Your task to perform on an android device: set default search engine in the chrome app Image 0: 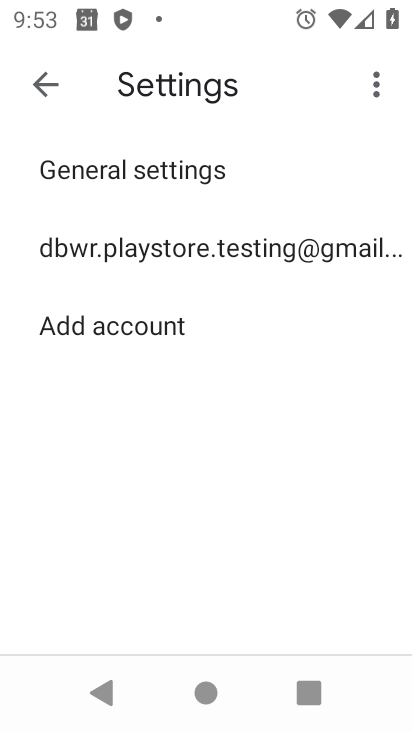
Step 0: press home button
Your task to perform on an android device: set default search engine in the chrome app Image 1: 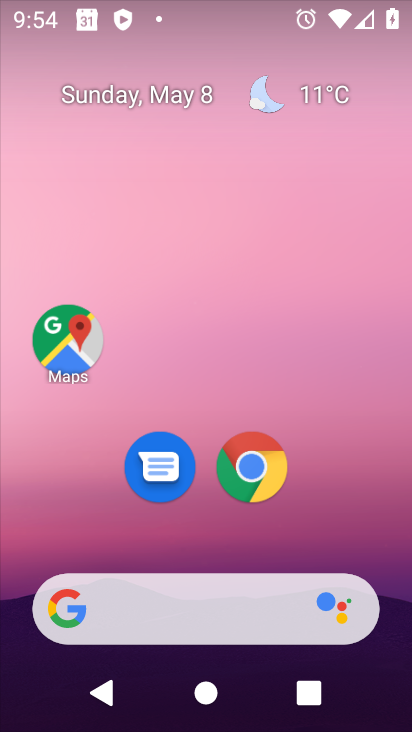
Step 1: click (253, 467)
Your task to perform on an android device: set default search engine in the chrome app Image 2: 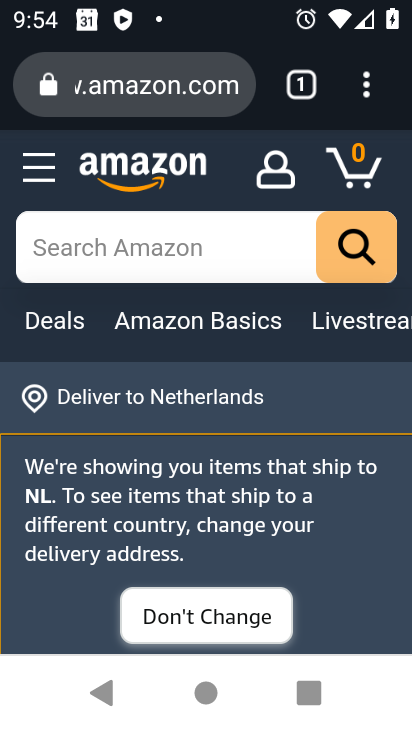
Step 2: press back button
Your task to perform on an android device: set default search engine in the chrome app Image 3: 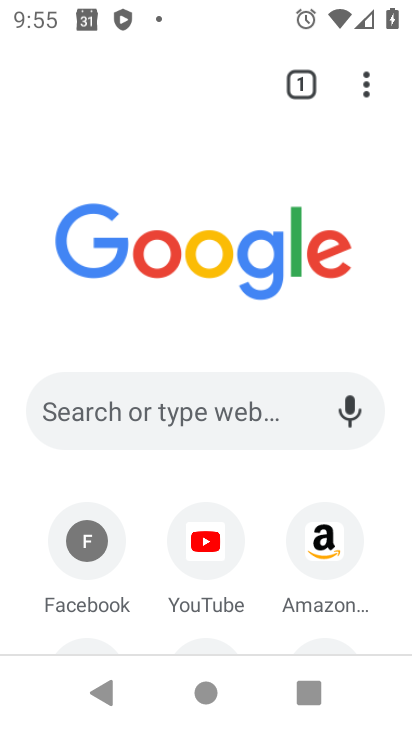
Step 3: click (362, 90)
Your task to perform on an android device: set default search engine in the chrome app Image 4: 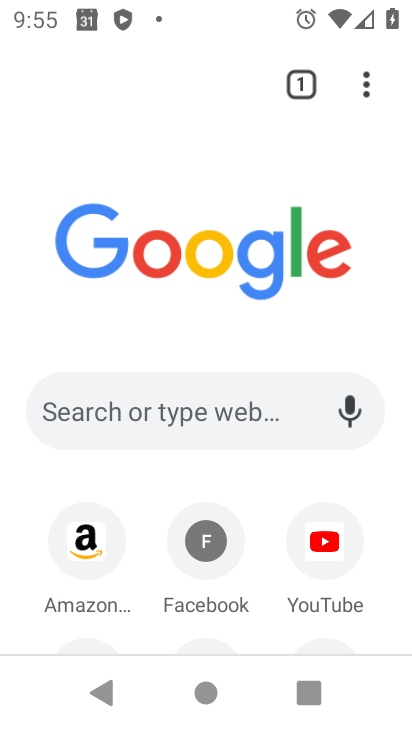
Step 4: click (362, 91)
Your task to perform on an android device: set default search engine in the chrome app Image 5: 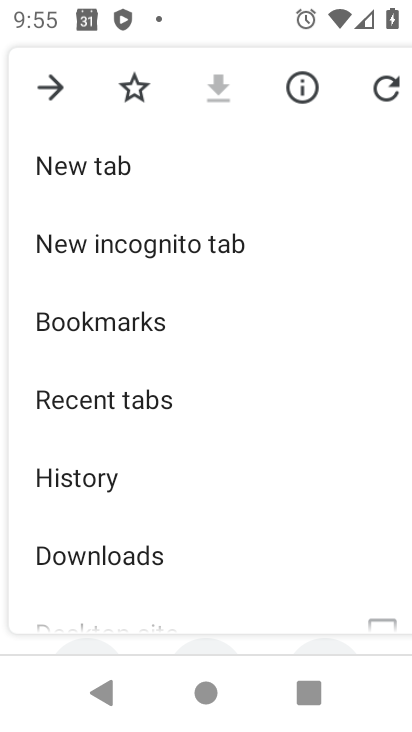
Step 5: drag from (185, 568) to (327, 250)
Your task to perform on an android device: set default search engine in the chrome app Image 6: 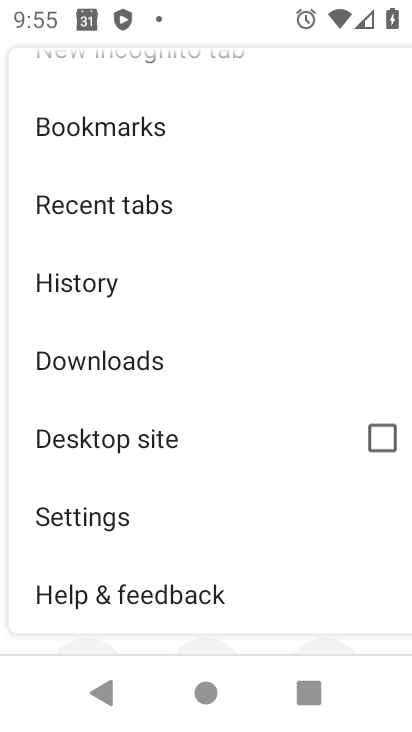
Step 6: click (121, 511)
Your task to perform on an android device: set default search engine in the chrome app Image 7: 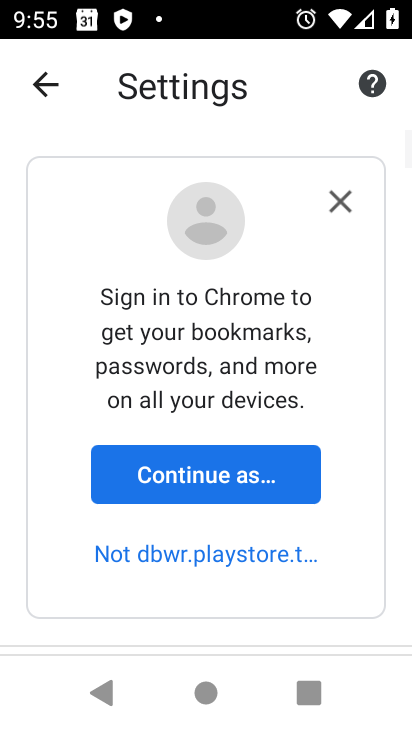
Step 7: click (338, 196)
Your task to perform on an android device: set default search engine in the chrome app Image 8: 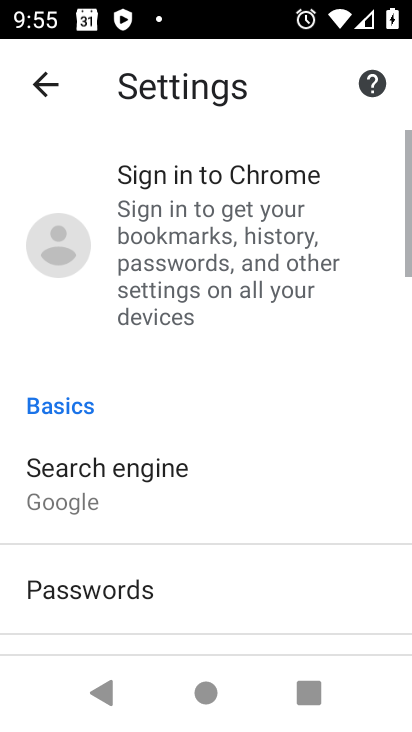
Step 8: click (134, 524)
Your task to perform on an android device: set default search engine in the chrome app Image 9: 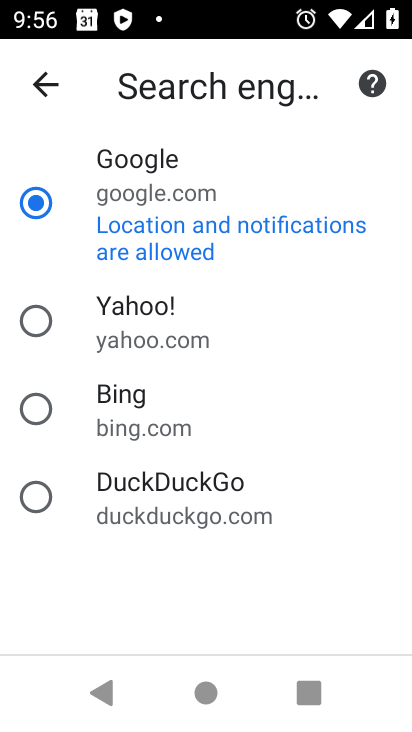
Step 9: task complete